Your task to perform on an android device: see tabs open on other devices in the chrome app Image 0: 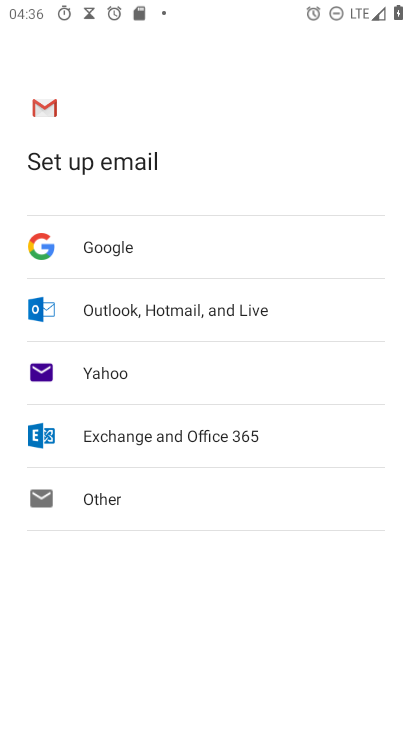
Step 0: press home button
Your task to perform on an android device: see tabs open on other devices in the chrome app Image 1: 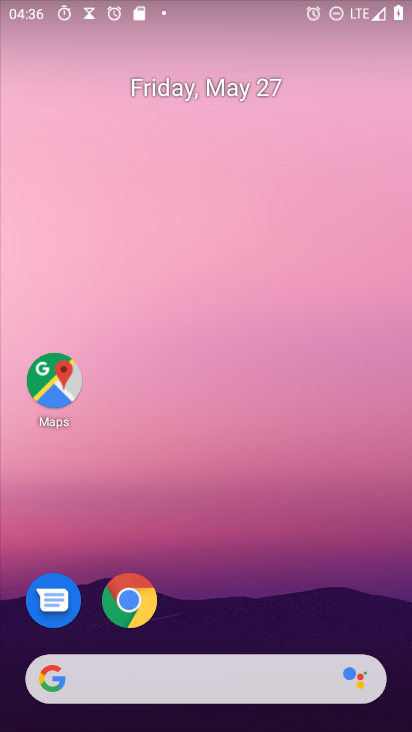
Step 1: click (123, 604)
Your task to perform on an android device: see tabs open on other devices in the chrome app Image 2: 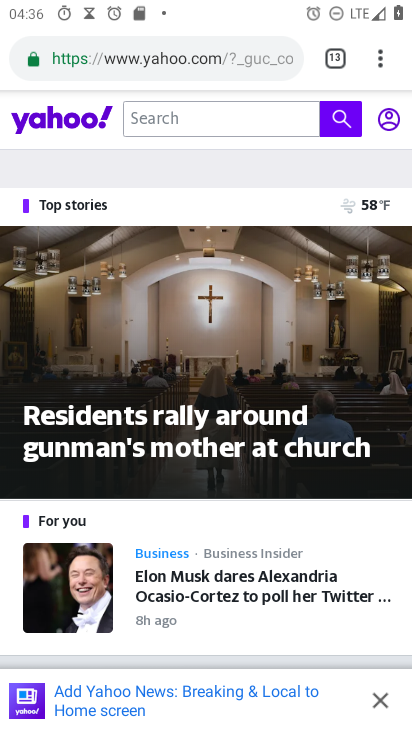
Step 2: click (382, 66)
Your task to perform on an android device: see tabs open on other devices in the chrome app Image 3: 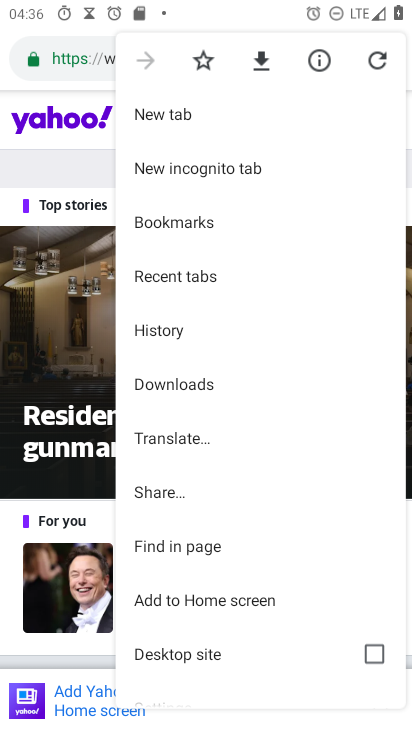
Step 3: click (164, 275)
Your task to perform on an android device: see tabs open on other devices in the chrome app Image 4: 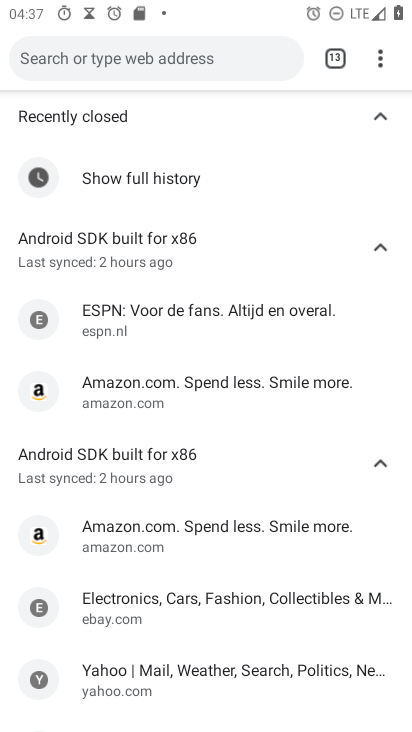
Step 4: task complete